Your task to perform on an android device: set an alarm Image 0: 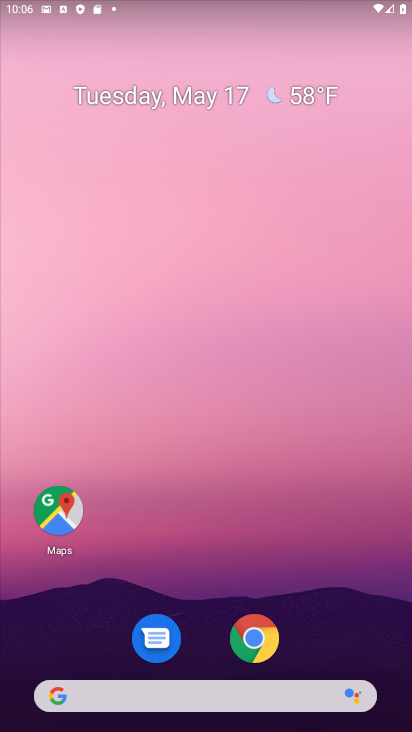
Step 0: drag from (192, 671) to (233, 388)
Your task to perform on an android device: set an alarm Image 1: 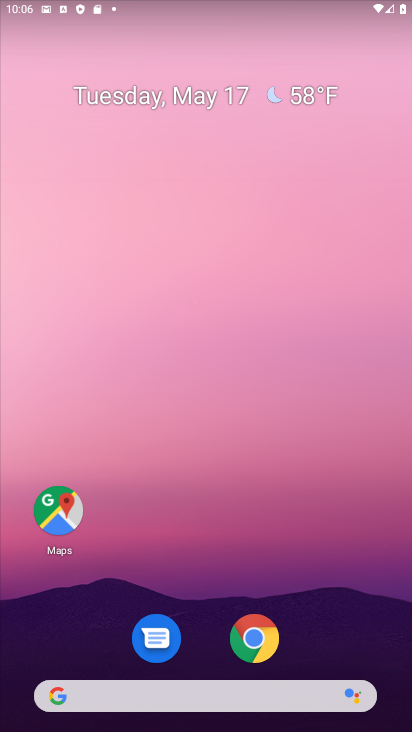
Step 1: drag from (195, 667) to (191, 72)
Your task to perform on an android device: set an alarm Image 2: 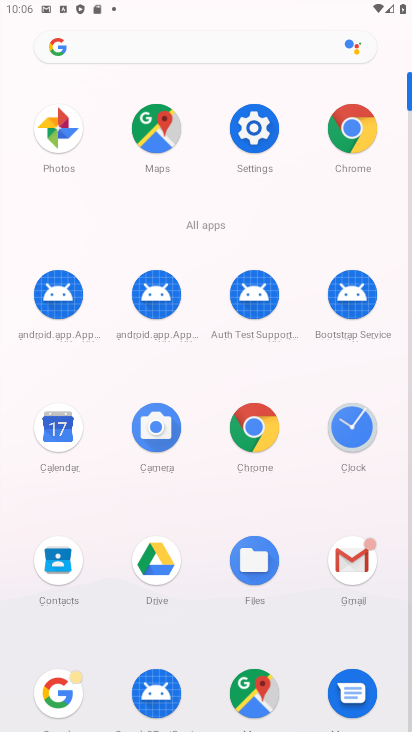
Step 2: click (342, 437)
Your task to perform on an android device: set an alarm Image 3: 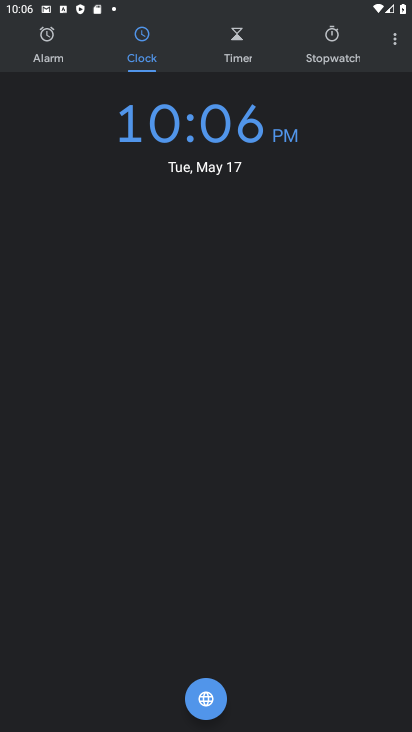
Step 3: click (43, 38)
Your task to perform on an android device: set an alarm Image 4: 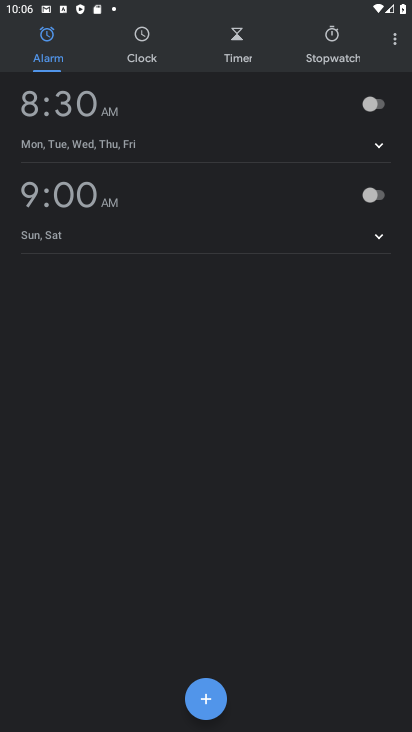
Step 4: task complete